Your task to perform on an android device: add a contact Image 0: 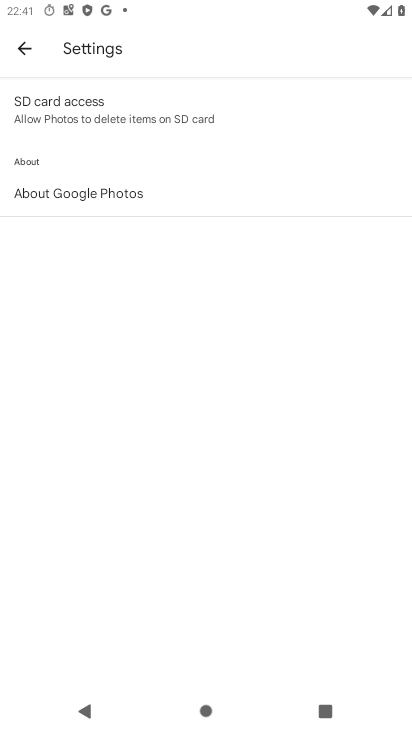
Step 0: press home button
Your task to perform on an android device: add a contact Image 1: 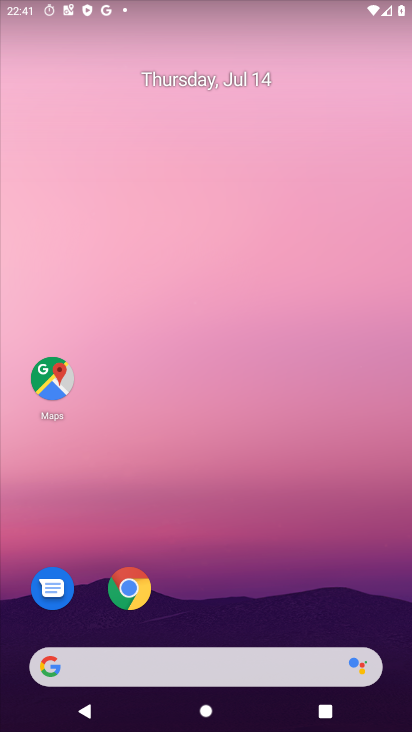
Step 1: drag from (209, 618) to (216, 85)
Your task to perform on an android device: add a contact Image 2: 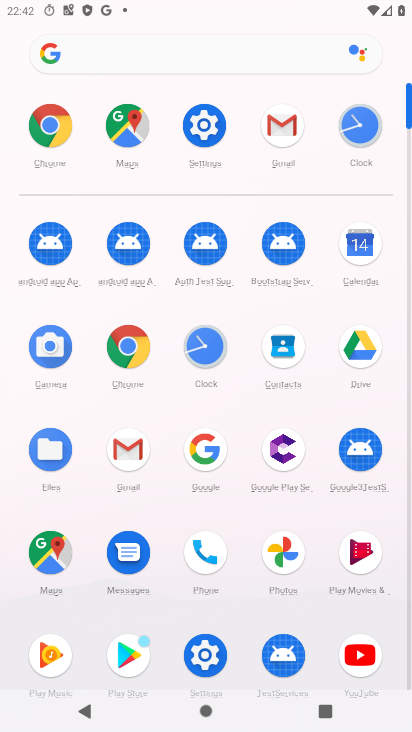
Step 2: click (280, 351)
Your task to perform on an android device: add a contact Image 3: 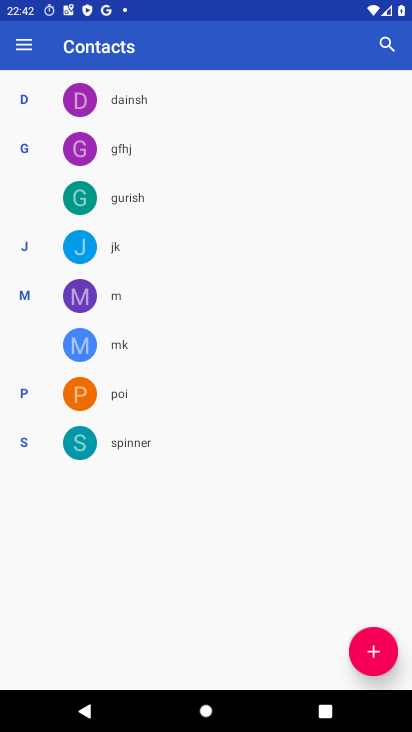
Step 3: click (373, 645)
Your task to perform on an android device: add a contact Image 4: 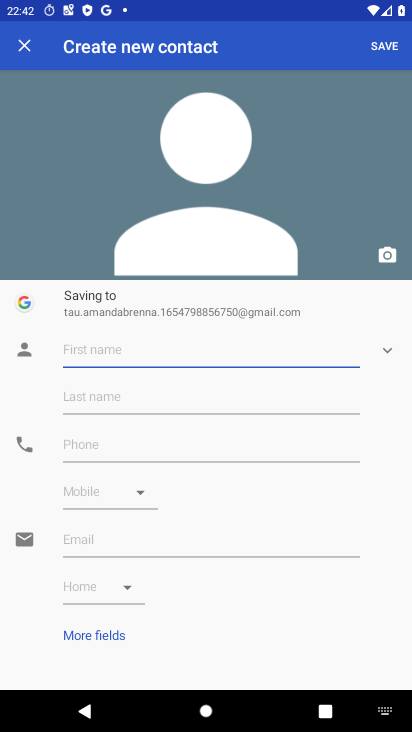
Step 4: type "hhjfjjmvhjfh"
Your task to perform on an android device: add a contact Image 5: 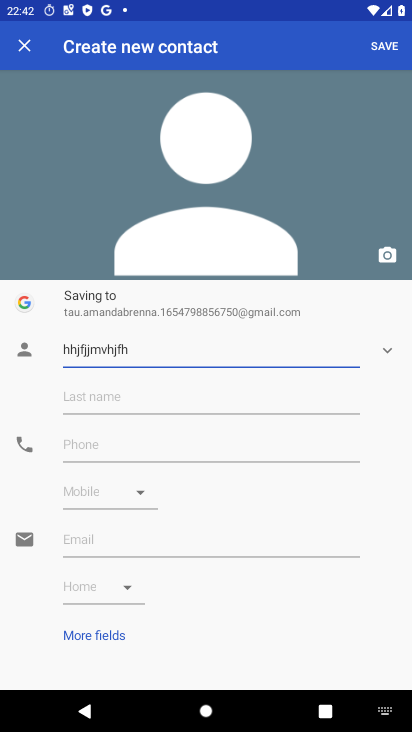
Step 5: click (166, 441)
Your task to perform on an android device: add a contact Image 6: 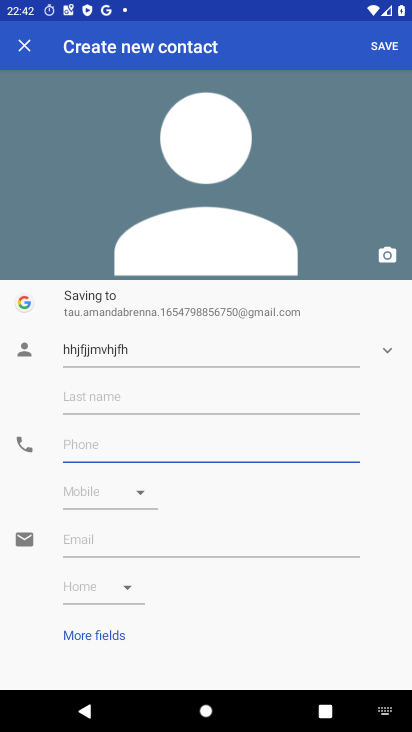
Step 6: type "467764673656"
Your task to perform on an android device: add a contact Image 7: 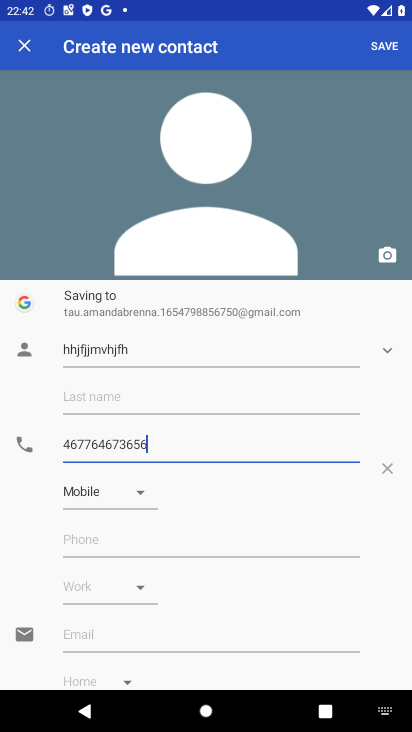
Step 7: click (378, 51)
Your task to perform on an android device: add a contact Image 8: 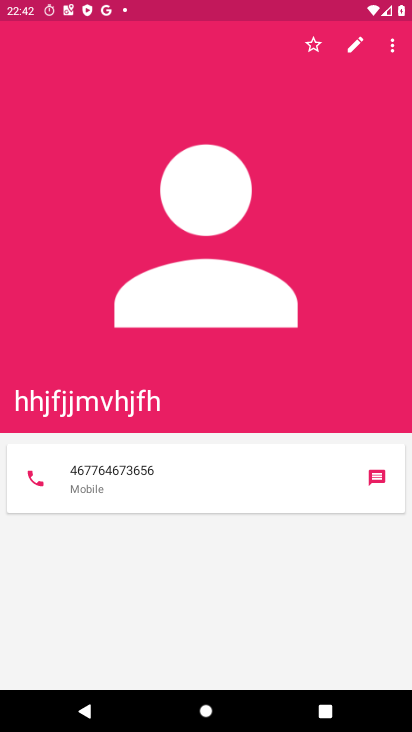
Step 8: task complete